Your task to perform on an android device: uninstall "Life360: Find Family & Friends" Image 0: 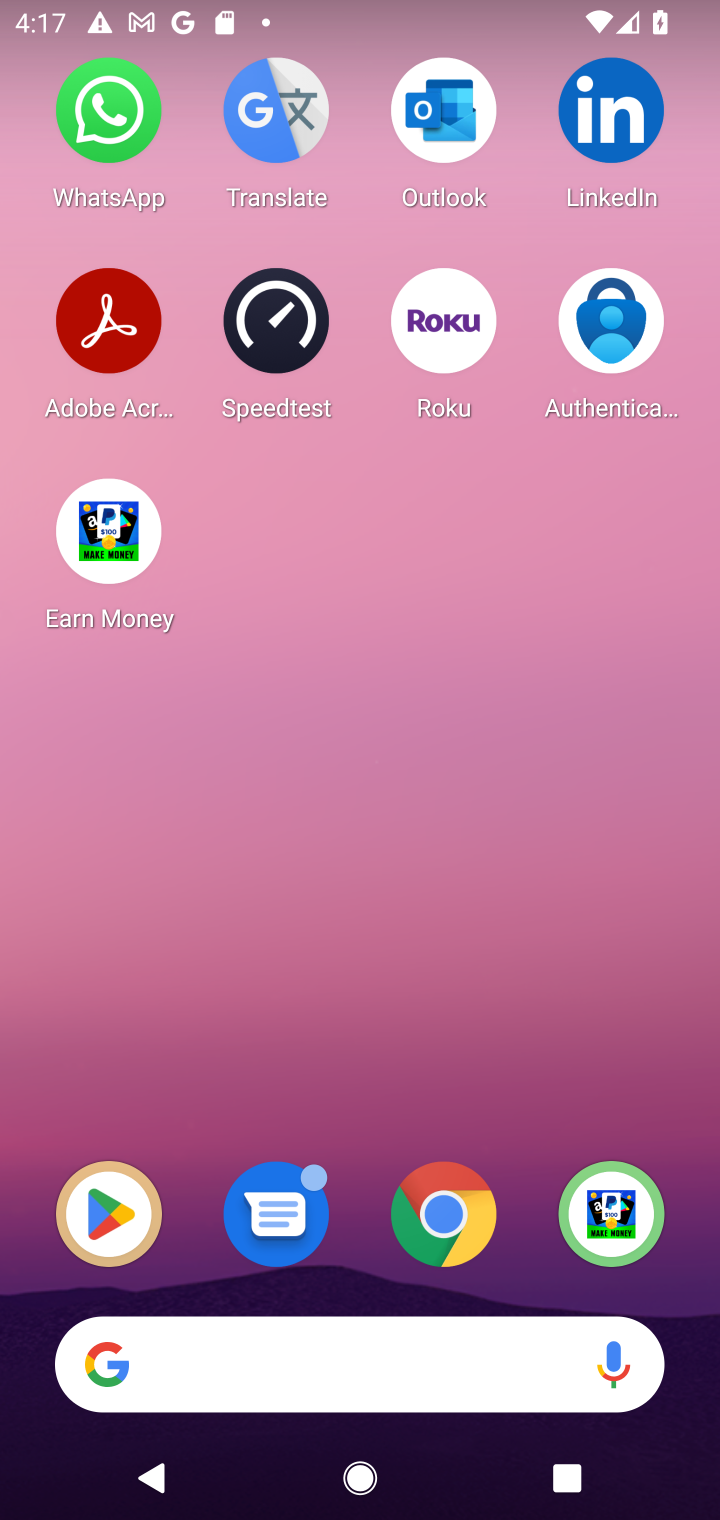
Step 0: click (101, 1228)
Your task to perform on an android device: uninstall "Life360: Find Family & Friends" Image 1: 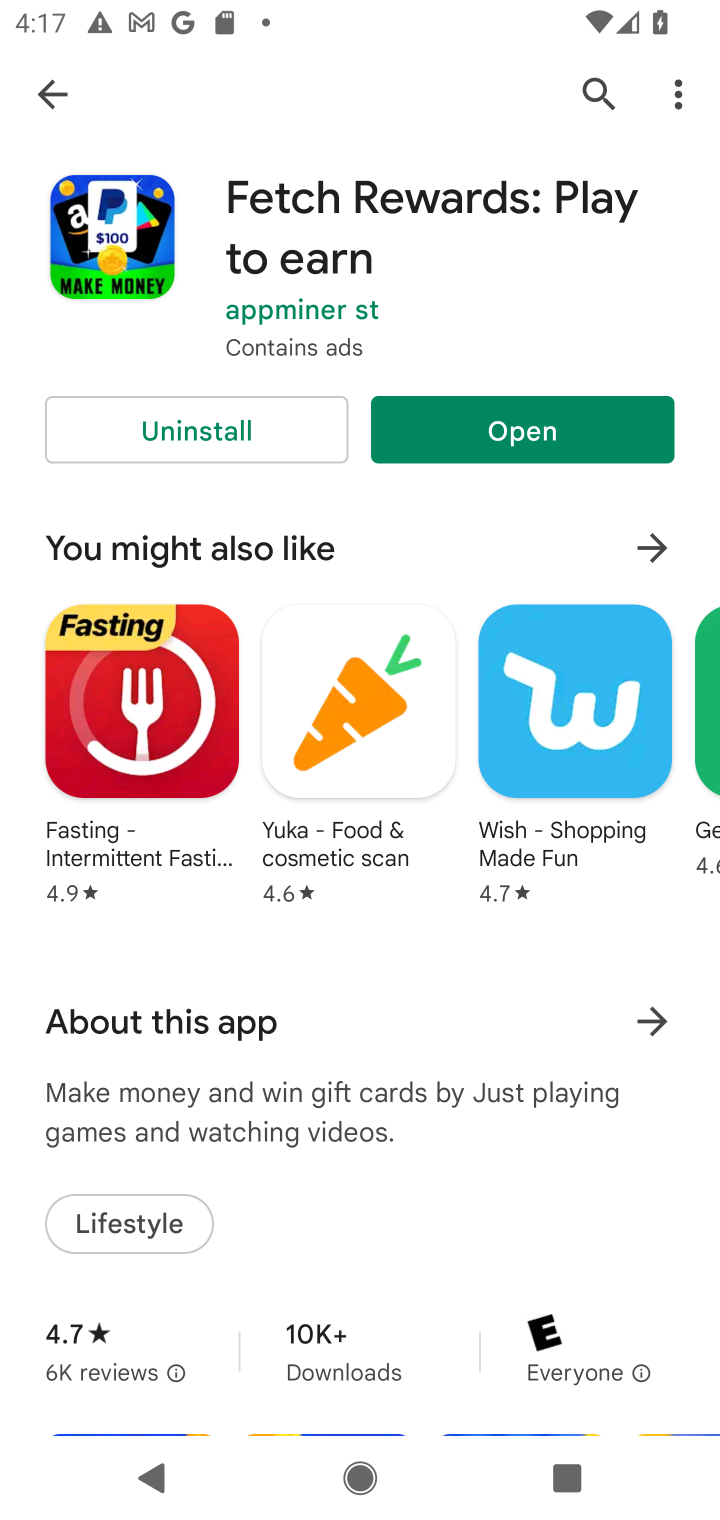
Step 1: click (45, 102)
Your task to perform on an android device: uninstall "Life360: Find Family & Friends" Image 2: 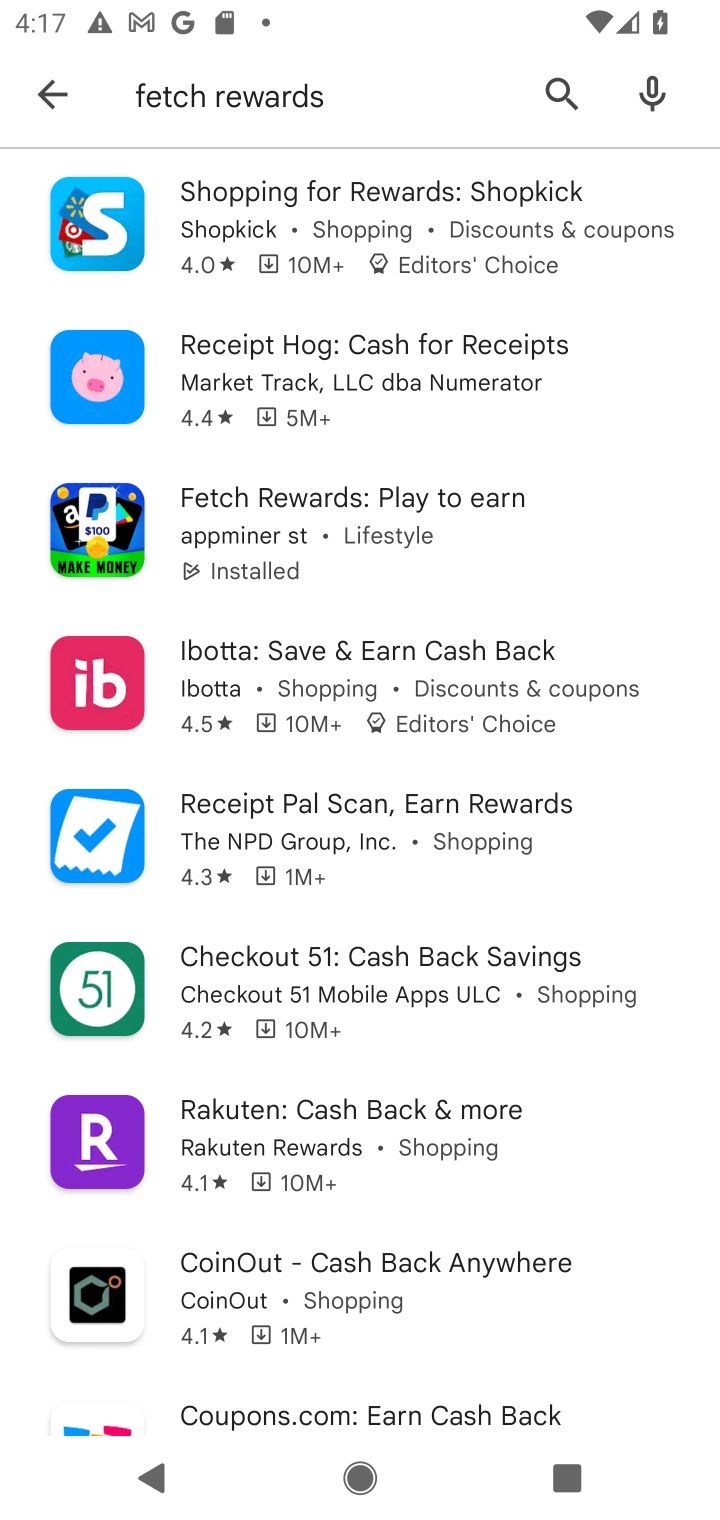
Step 2: click (244, 97)
Your task to perform on an android device: uninstall "Life360: Find Family & Friends" Image 3: 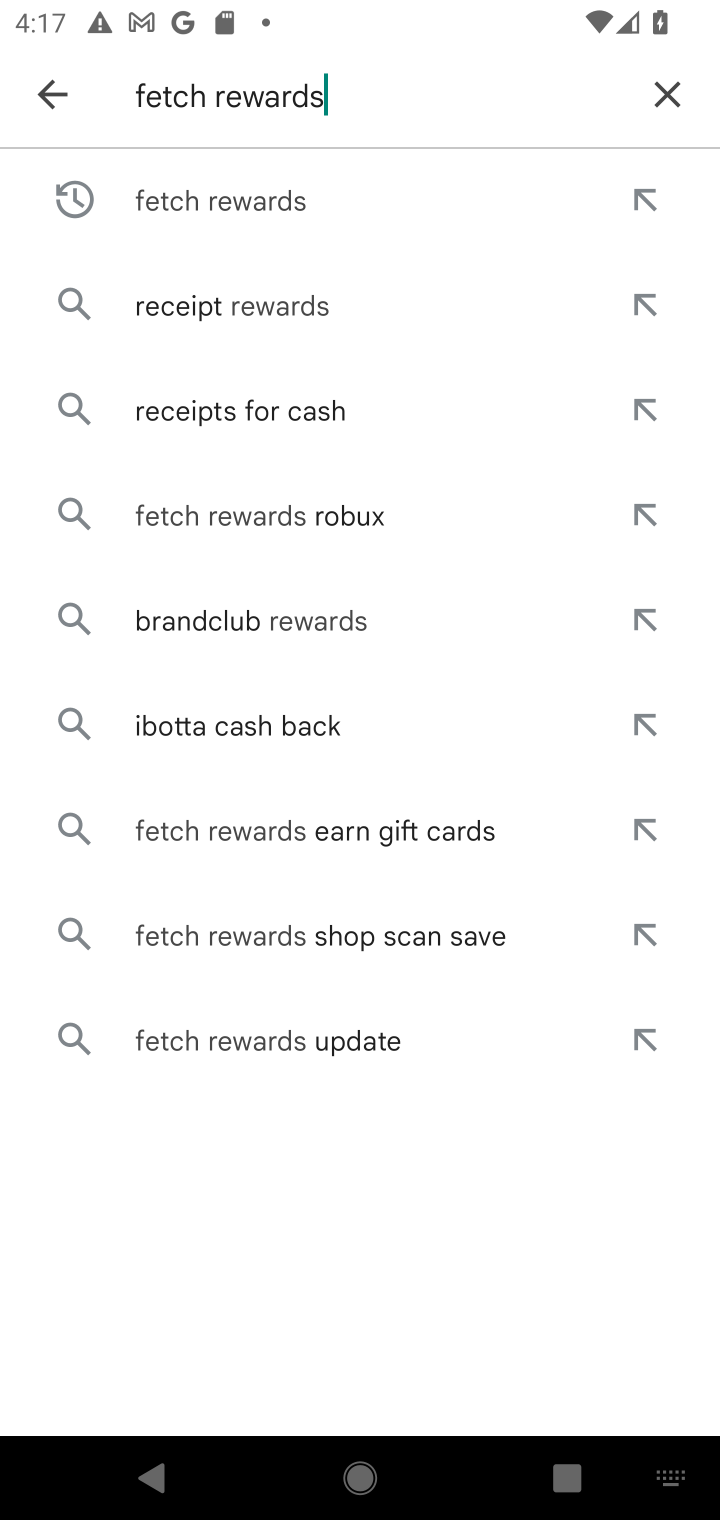
Step 3: click (660, 89)
Your task to perform on an android device: uninstall "Life360: Find Family & Friends" Image 4: 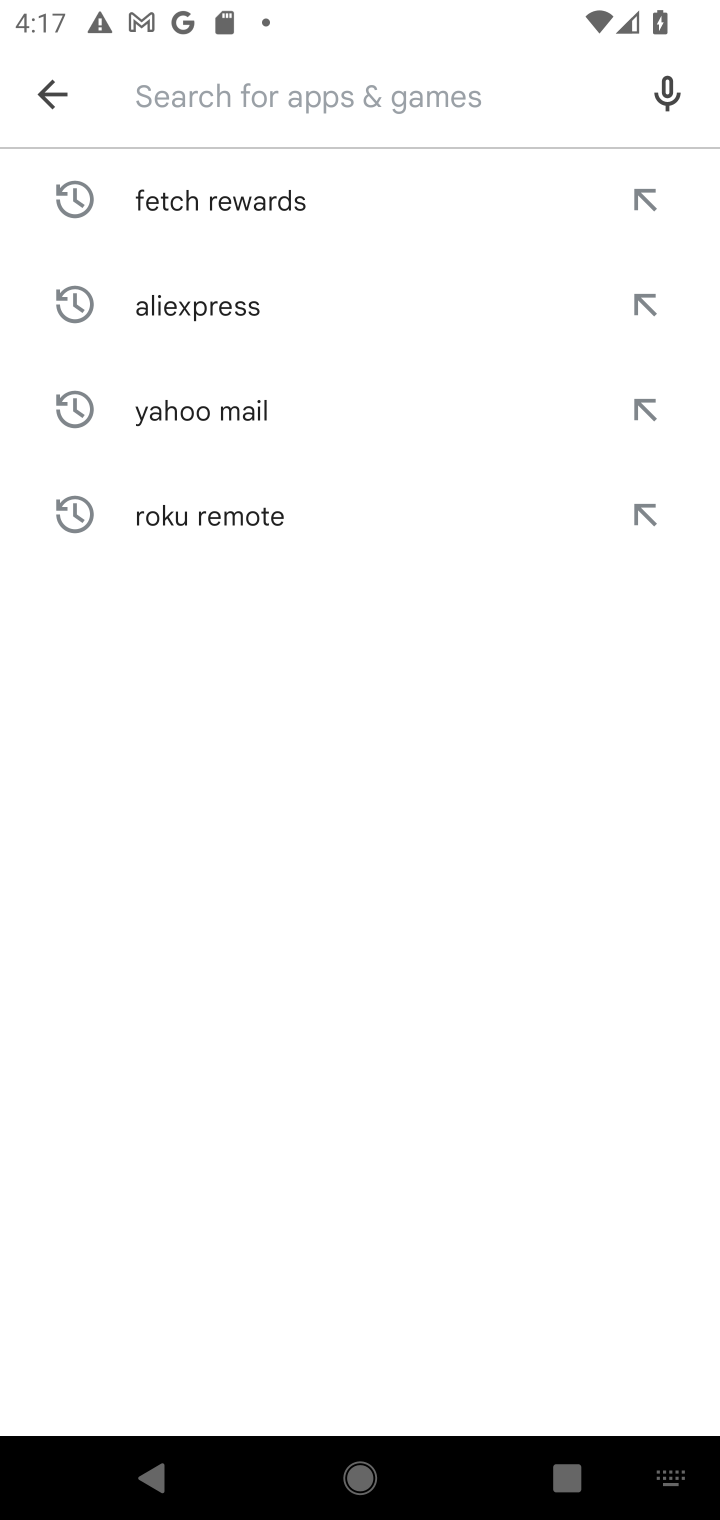
Step 4: type "life360"
Your task to perform on an android device: uninstall "Life360: Find Family & Friends" Image 5: 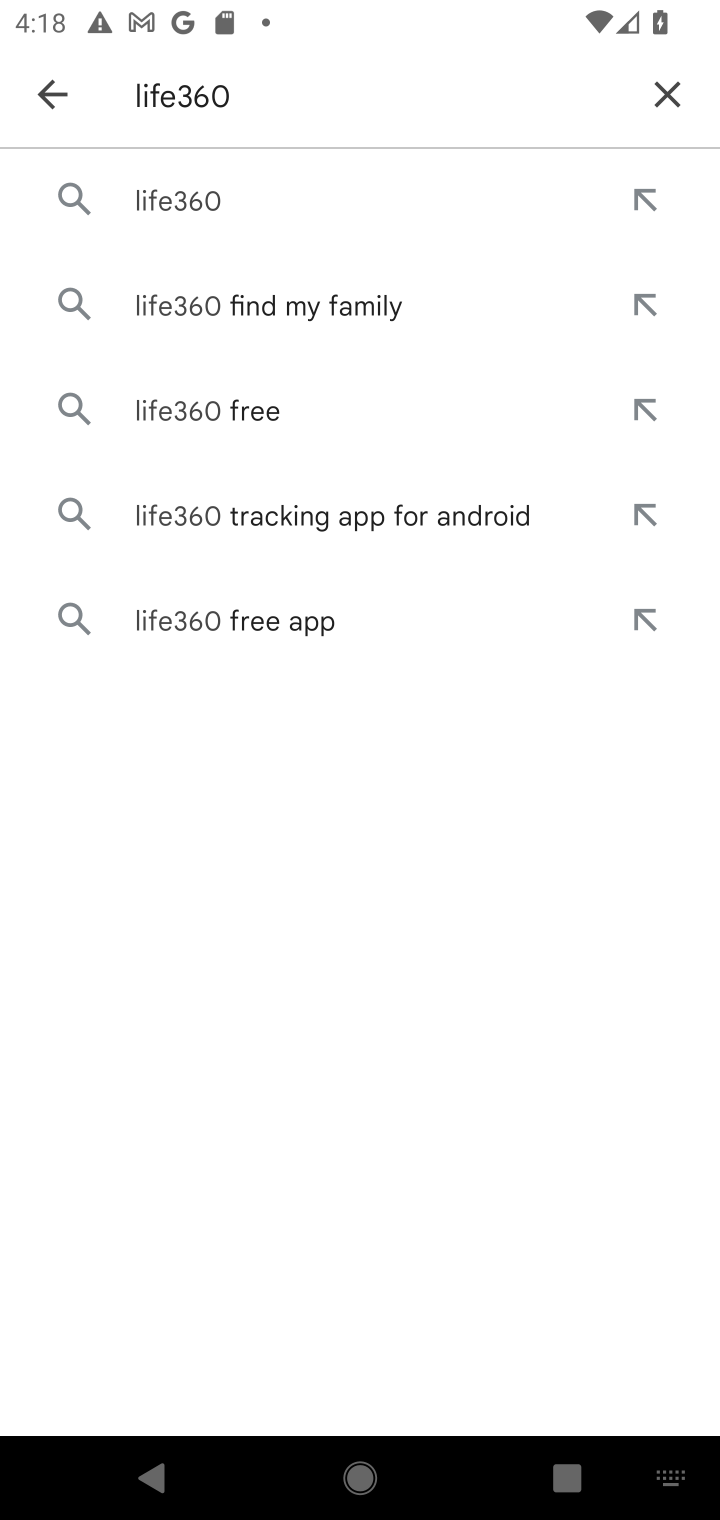
Step 5: click (168, 204)
Your task to perform on an android device: uninstall "Life360: Find Family & Friends" Image 6: 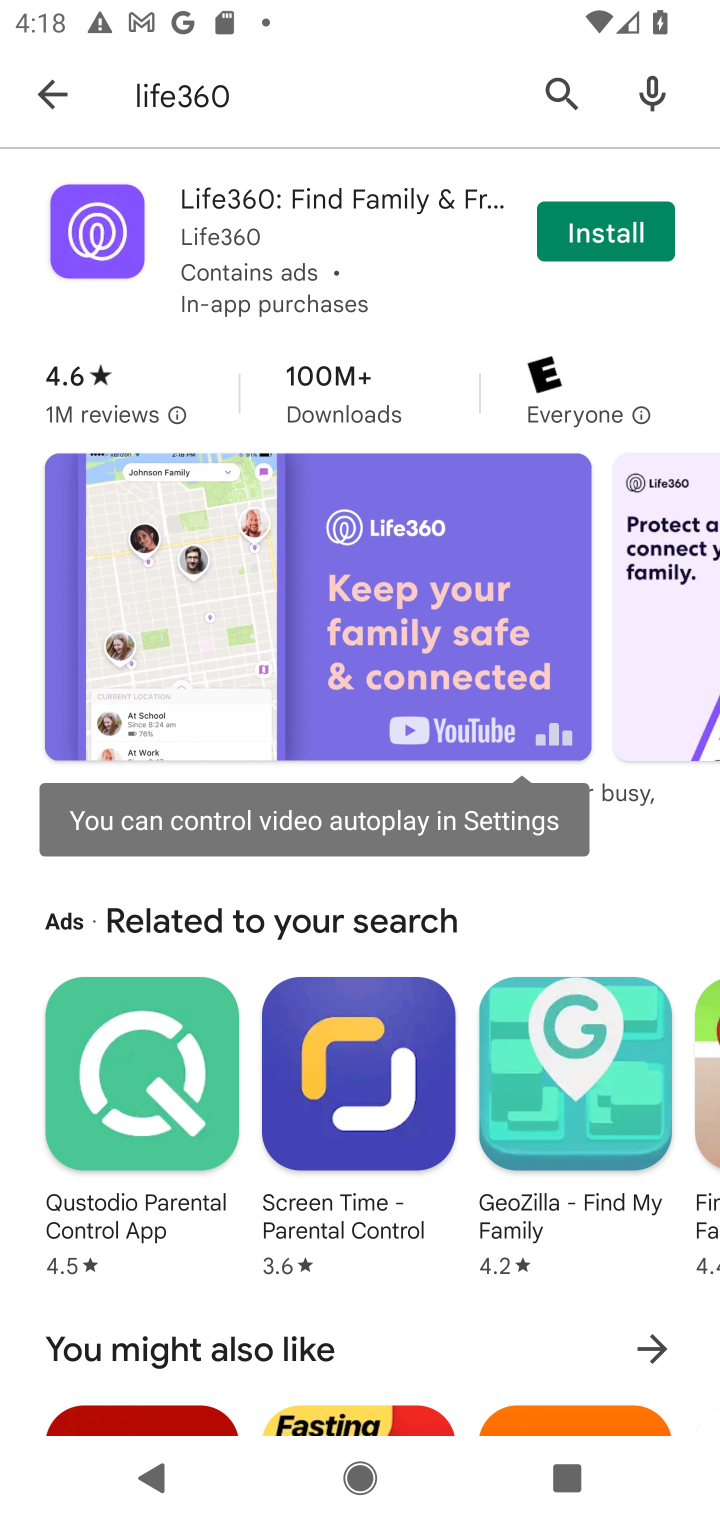
Step 6: task complete